Your task to perform on an android device: Go to Amazon Image 0: 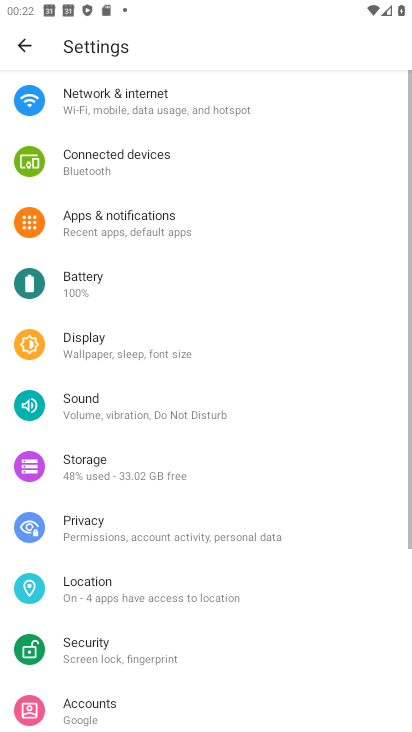
Step 0: press home button
Your task to perform on an android device: Go to Amazon Image 1: 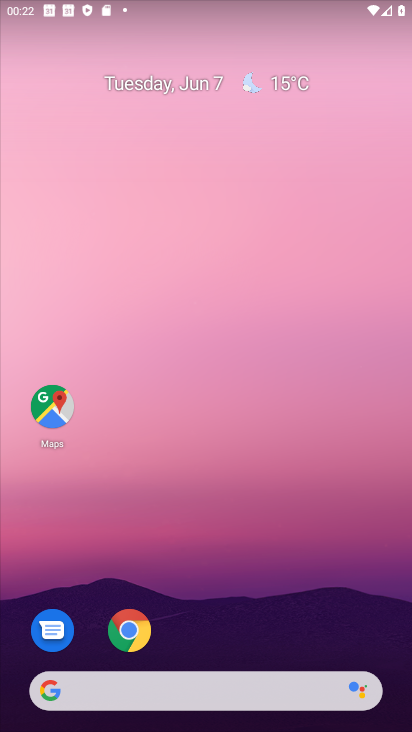
Step 1: drag from (308, 591) to (320, 194)
Your task to perform on an android device: Go to Amazon Image 2: 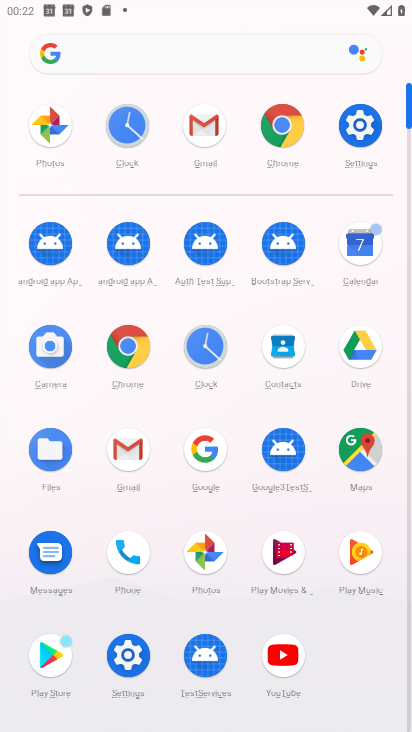
Step 2: click (143, 358)
Your task to perform on an android device: Go to Amazon Image 3: 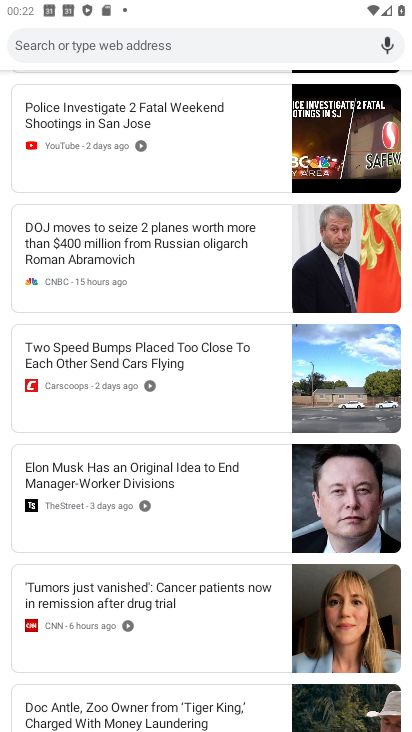
Step 3: click (126, 46)
Your task to perform on an android device: Go to Amazon Image 4: 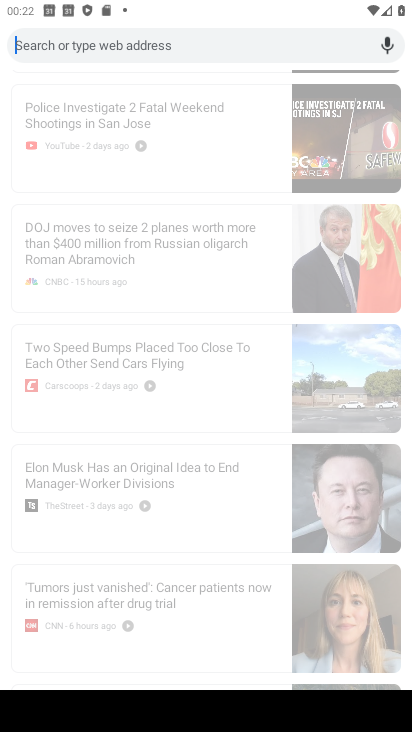
Step 4: type "amazon.com"
Your task to perform on an android device: Go to Amazon Image 5: 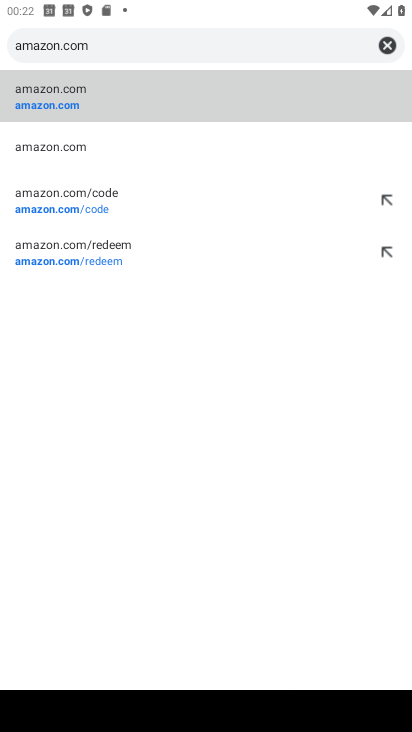
Step 5: click (169, 96)
Your task to perform on an android device: Go to Amazon Image 6: 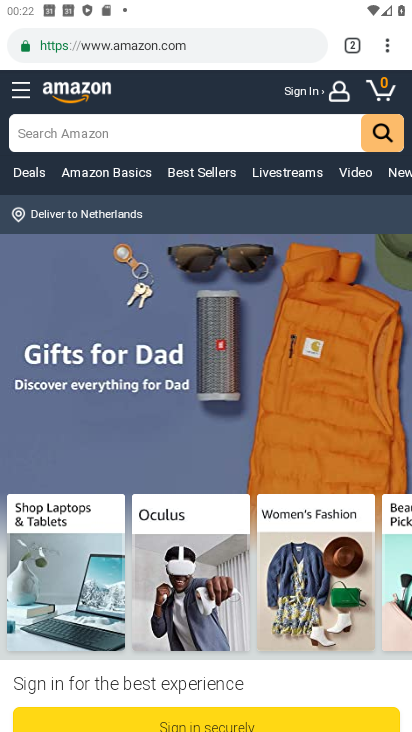
Step 6: task complete